Your task to perform on an android device: Go to battery settings Image 0: 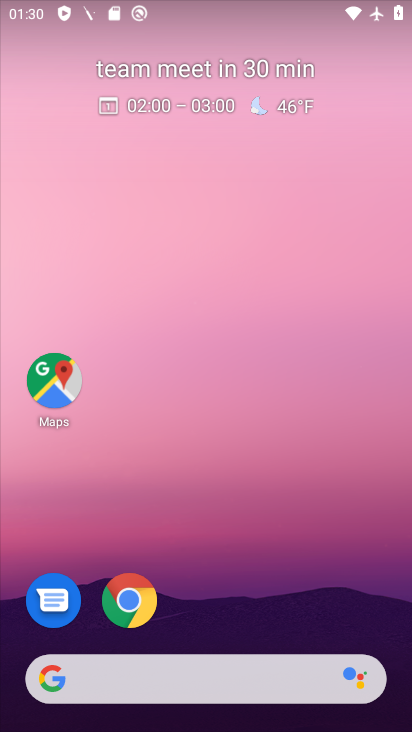
Step 0: drag from (220, 638) to (266, 11)
Your task to perform on an android device: Go to battery settings Image 1: 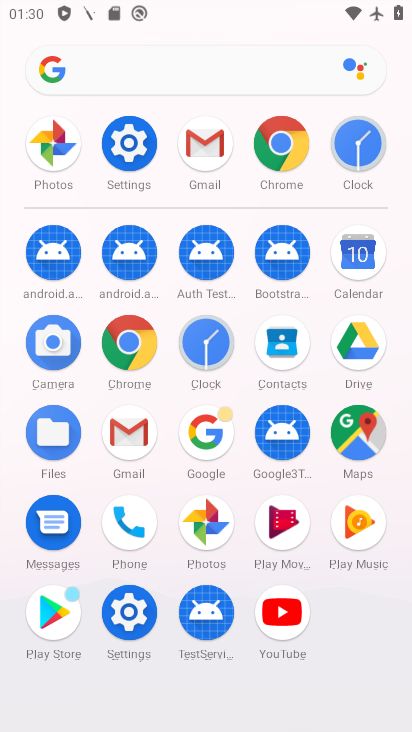
Step 1: click (126, 624)
Your task to perform on an android device: Go to battery settings Image 2: 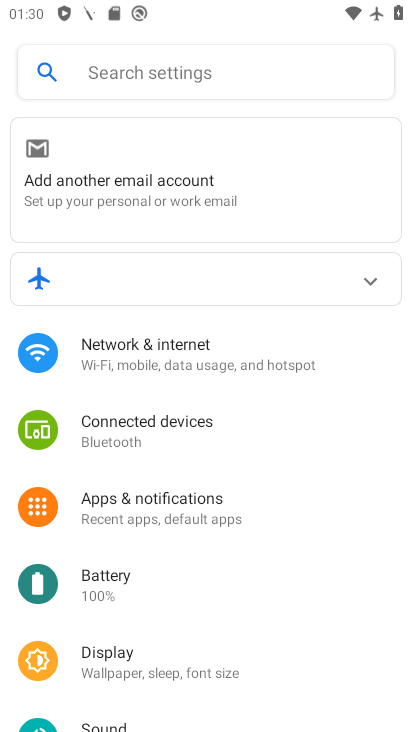
Step 2: drag from (178, 626) to (153, 396)
Your task to perform on an android device: Go to battery settings Image 3: 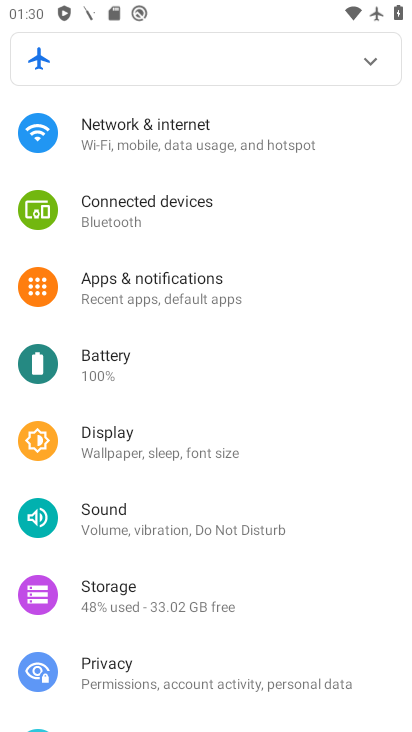
Step 3: click (123, 371)
Your task to perform on an android device: Go to battery settings Image 4: 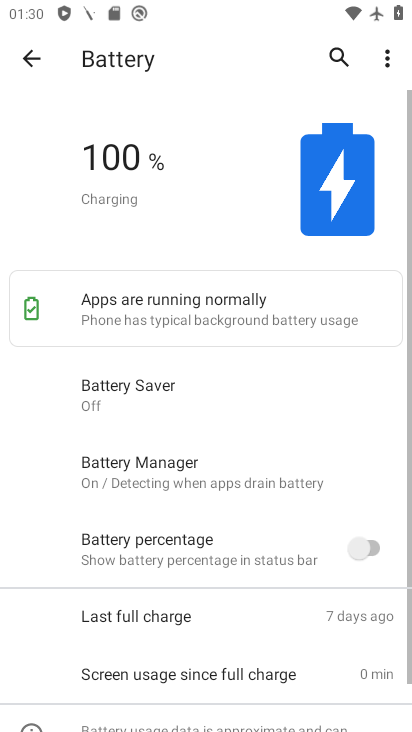
Step 4: task complete